Your task to perform on an android device: set an alarm Image 0: 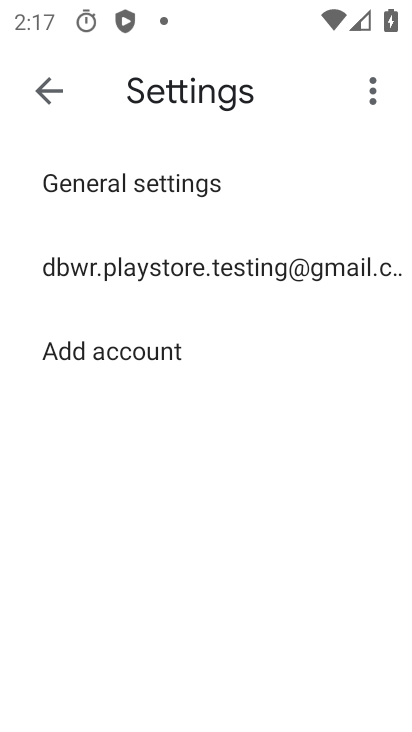
Step 0: press home button
Your task to perform on an android device: set an alarm Image 1: 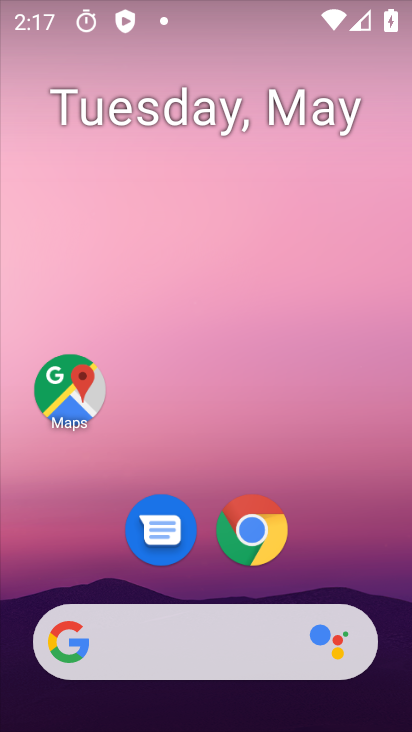
Step 1: drag from (205, 591) to (190, 24)
Your task to perform on an android device: set an alarm Image 2: 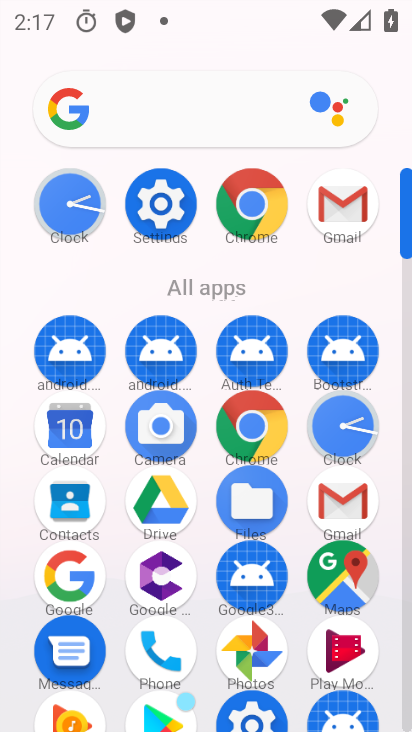
Step 2: click (346, 427)
Your task to perform on an android device: set an alarm Image 3: 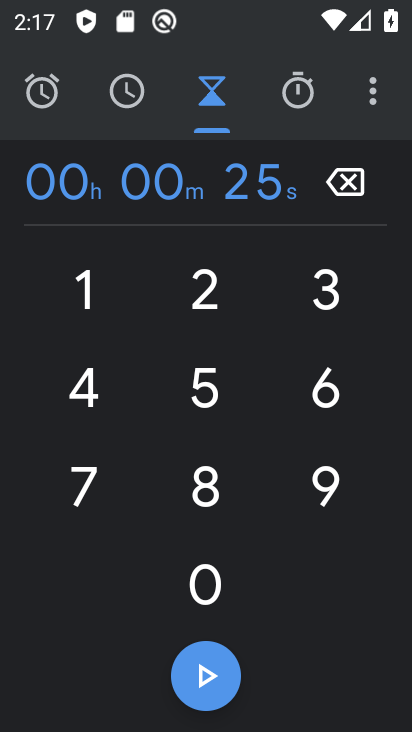
Step 3: click (312, 85)
Your task to perform on an android device: set an alarm Image 4: 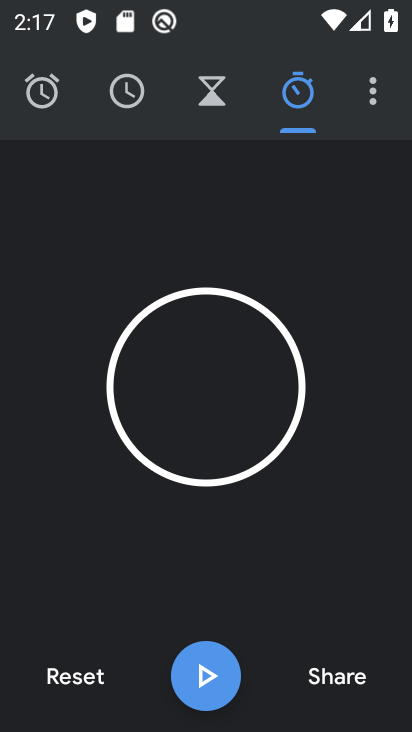
Step 4: click (79, 80)
Your task to perform on an android device: set an alarm Image 5: 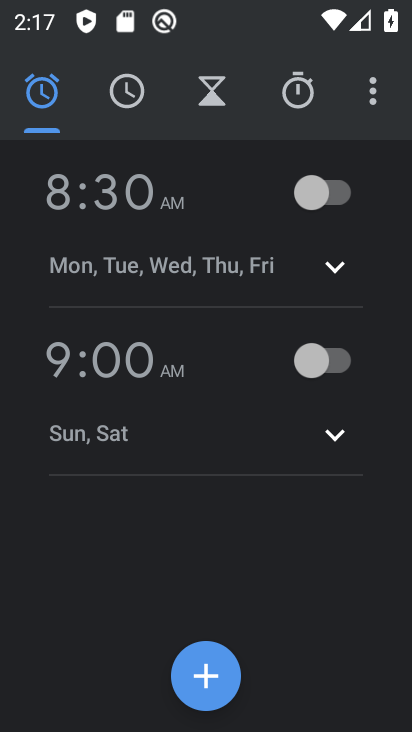
Step 5: click (207, 698)
Your task to perform on an android device: set an alarm Image 6: 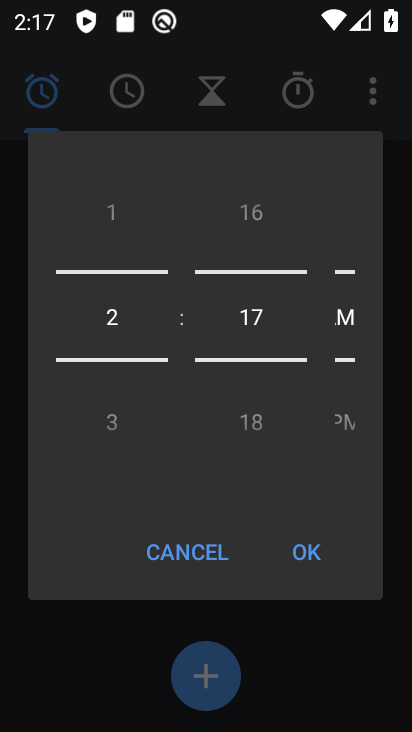
Step 6: click (284, 553)
Your task to perform on an android device: set an alarm Image 7: 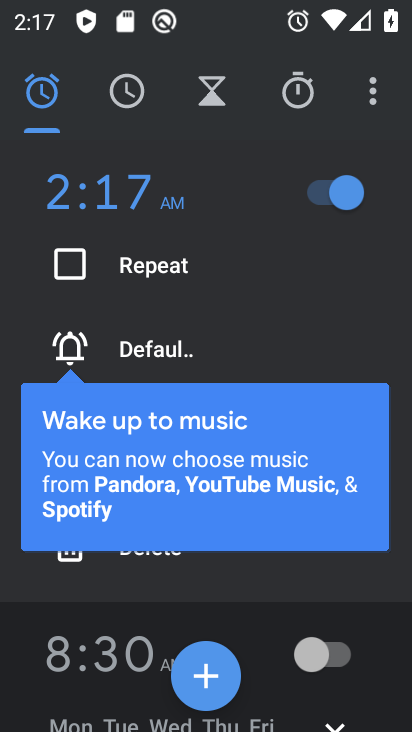
Step 7: task complete